Your task to perform on an android device: Turn on the flashlight Image 0: 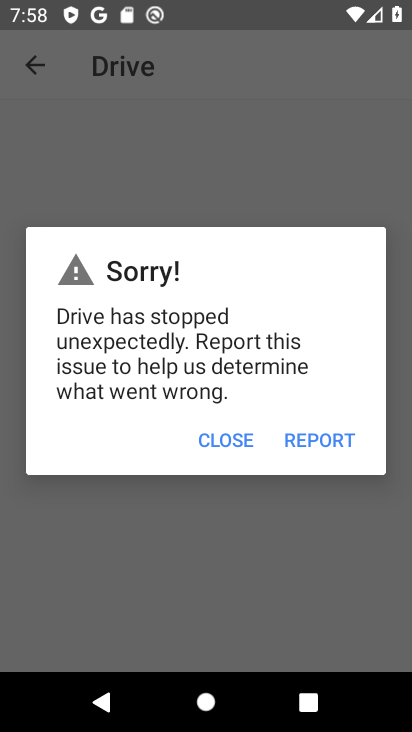
Step 0: press home button
Your task to perform on an android device: Turn on the flashlight Image 1: 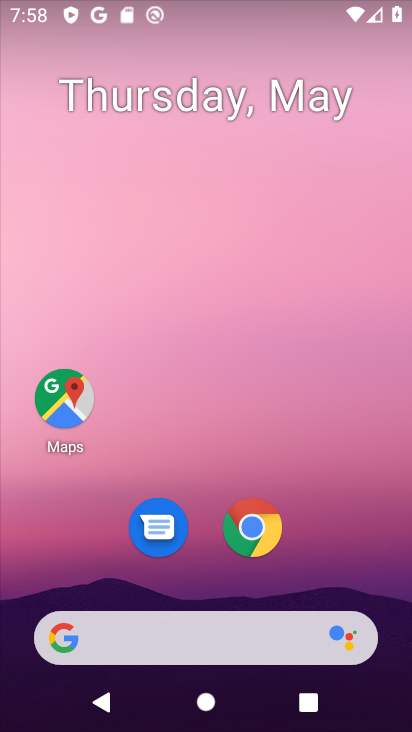
Step 1: drag from (38, 577) to (327, 193)
Your task to perform on an android device: Turn on the flashlight Image 2: 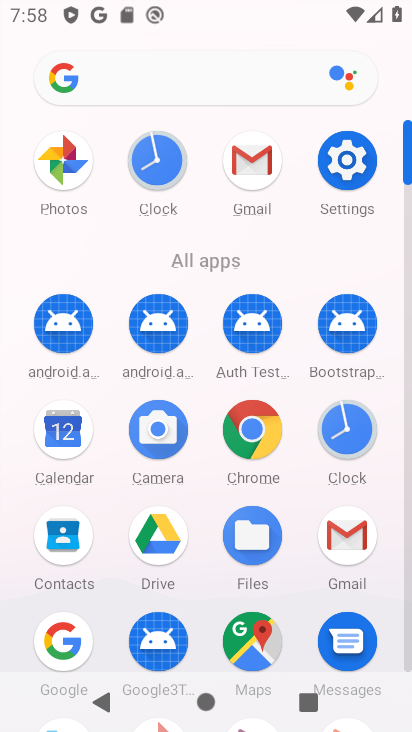
Step 2: click (358, 158)
Your task to perform on an android device: Turn on the flashlight Image 3: 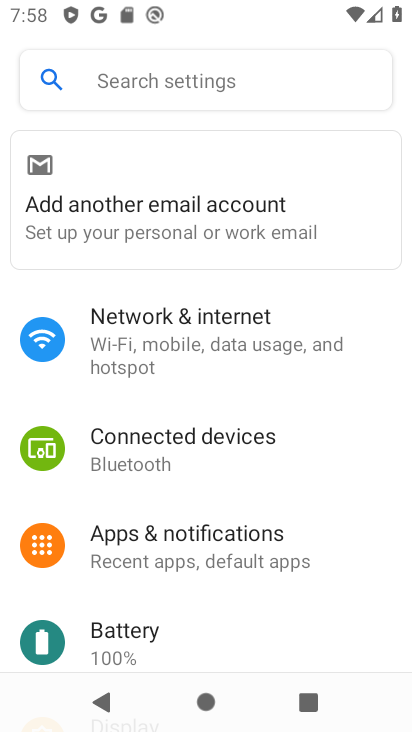
Step 3: click (108, 559)
Your task to perform on an android device: Turn on the flashlight Image 4: 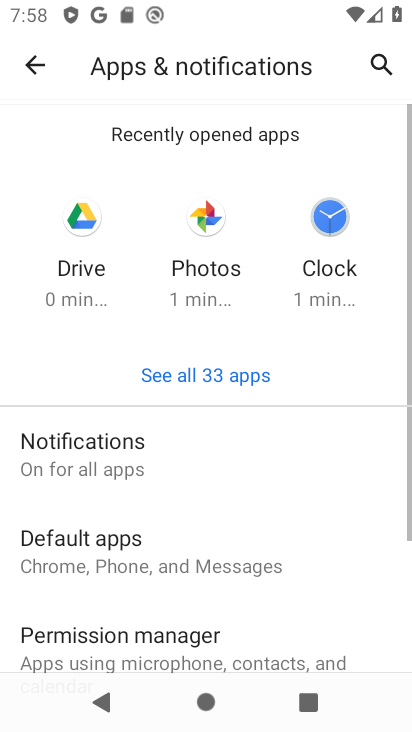
Step 4: task complete